Your task to perform on an android device: turn on sleep mode Image 0: 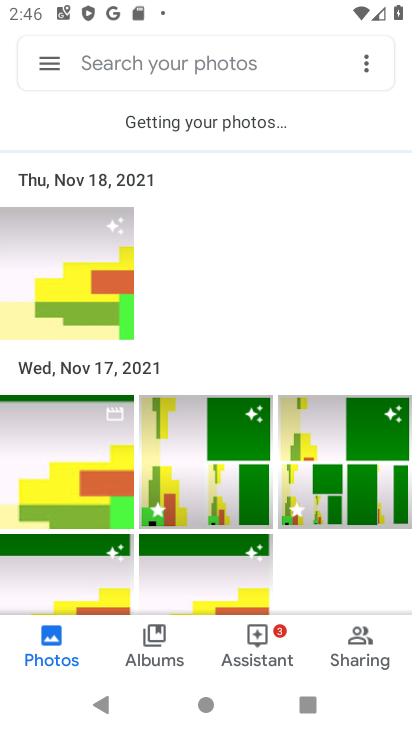
Step 0: press home button
Your task to perform on an android device: turn on sleep mode Image 1: 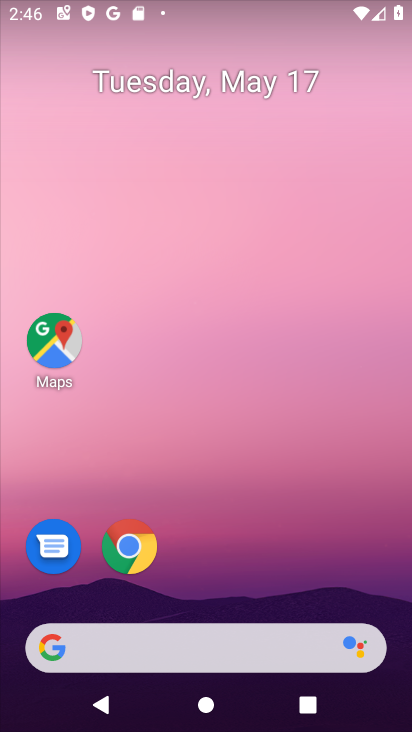
Step 1: click (360, 298)
Your task to perform on an android device: turn on sleep mode Image 2: 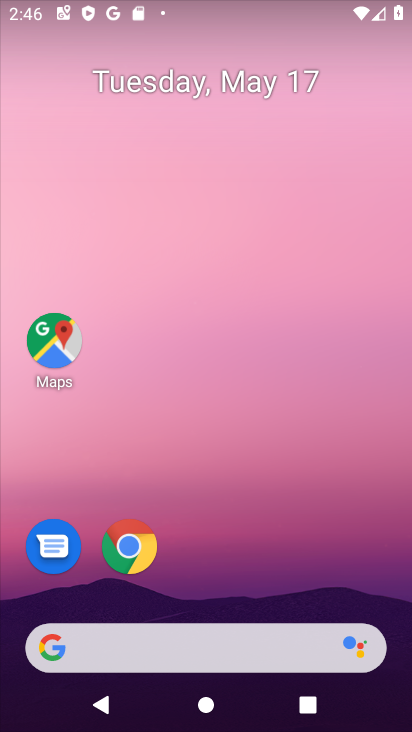
Step 2: drag from (395, 425) to (392, 300)
Your task to perform on an android device: turn on sleep mode Image 3: 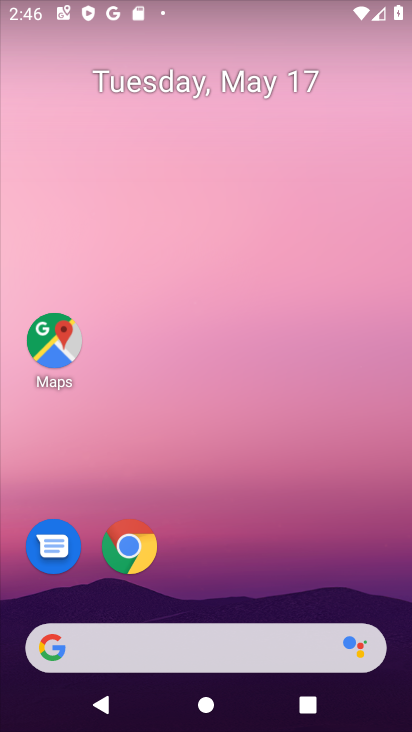
Step 3: drag from (409, 616) to (390, 233)
Your task to perform on an android device: turn on sleep mode Image 4: 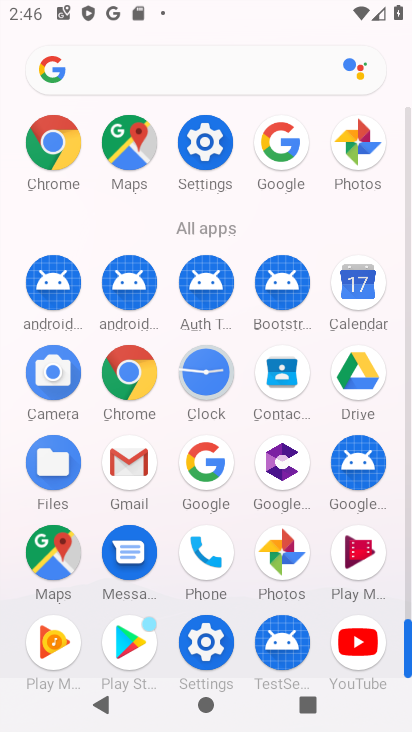
Step 4: click (198, 637)
Your task to perform on an android device: turn on sleep mode Image 5: 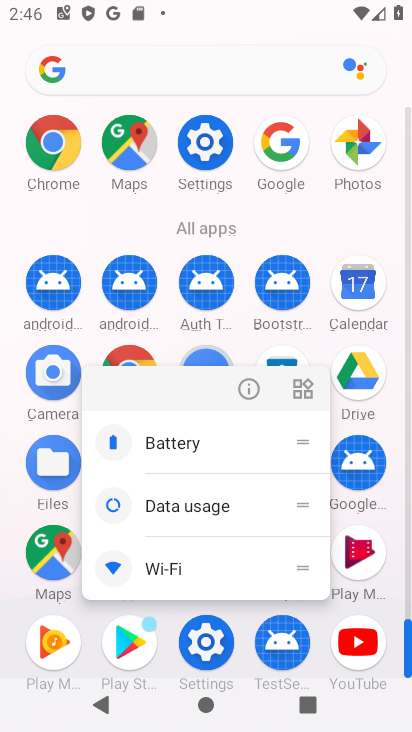
Step 5: click (204, 636)
Your task to perform on an android device: turn on sleep mode Image 6: 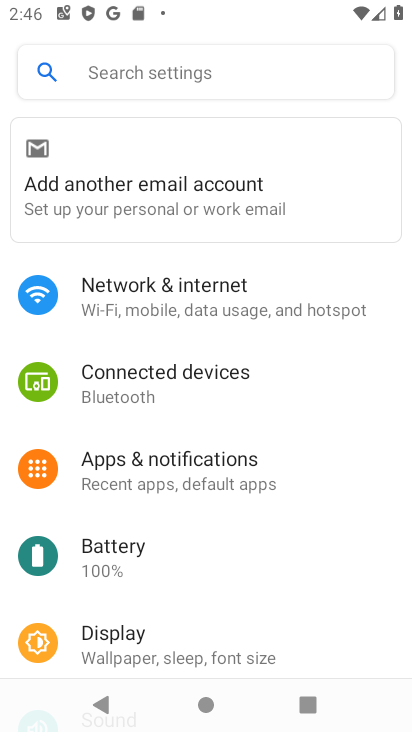
Step 6: drag from (225, 601) to (215, 410)
Your task to perform on an android device: turn on sleep mode Image 7: 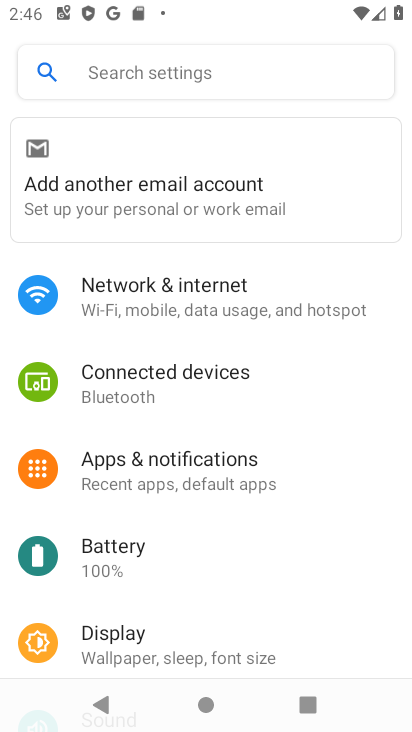
Step 7: click (110, 649)
Your task to perform on an android device: turn on sleep mode Image 8: 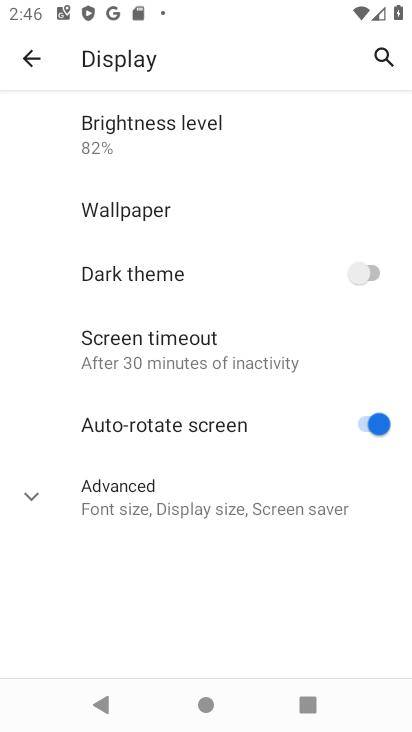
Step 8: click (145, 350)
Your task to perform on an android device: turn on sleep mode Image 9: 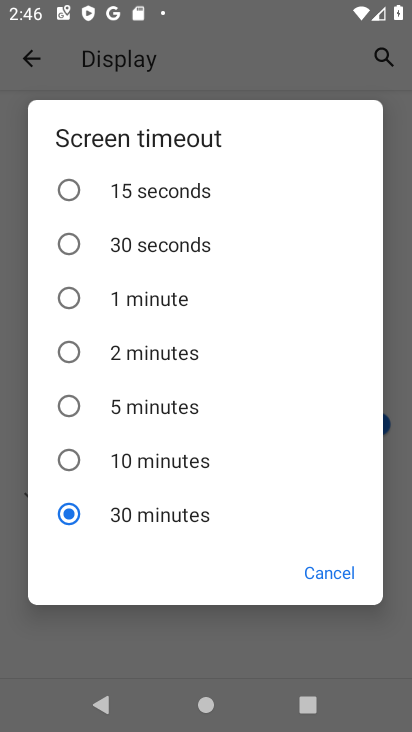
Step 9: task complete